Your task to perform on an android device: change keyboard looks Image 0: 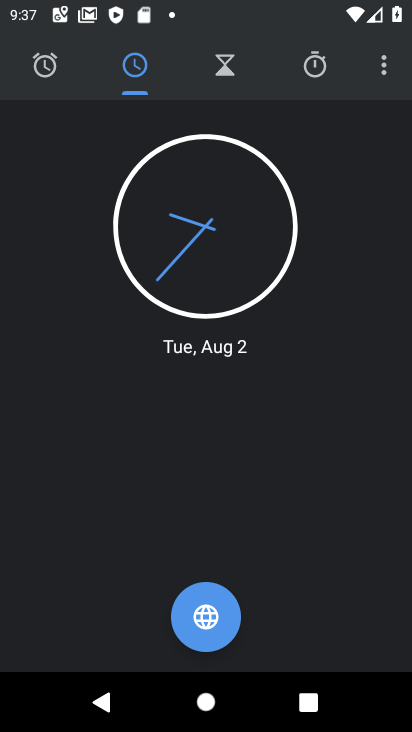
Step 0: press home button
Your task to perform on an android device: change keyboard looks Image 1: 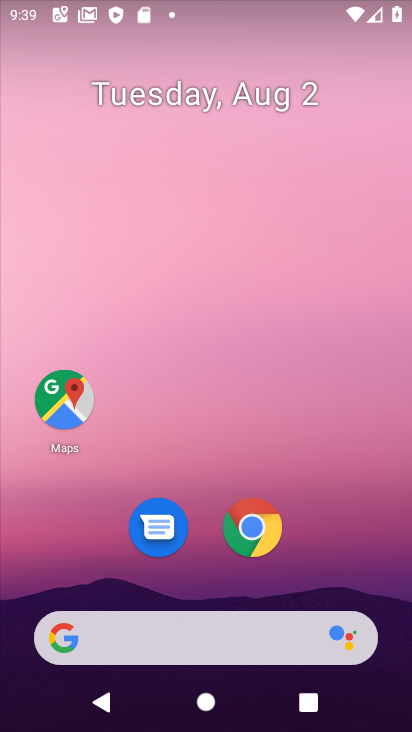
Step 1: drag from (144, 459) to (120, 143)
Your task to perform on an android device: change keyboard looks Image 2: 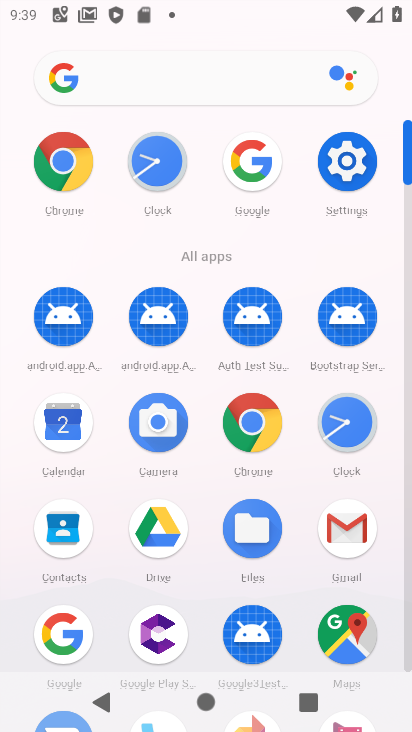
Step 2: click (345, 165)
Your task to perform on an android device: change keyboard looks Image 3: 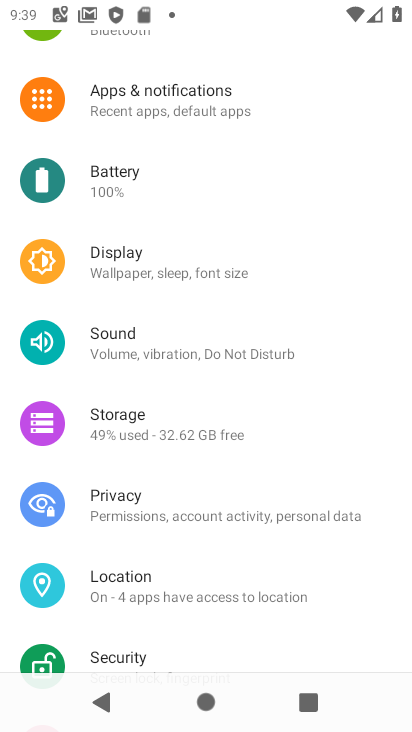
Step 3: drag from (107, 621) to (113, 332)
Your task to perform on an android device: change keyboard looks Image 4: 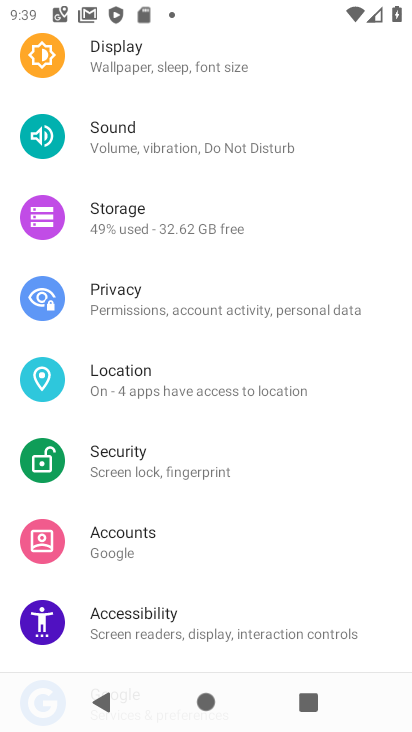
Step 4: drag from (157, 545) to (162, 238)
Your task to perform on an android device: change keyboard looks Image 5: 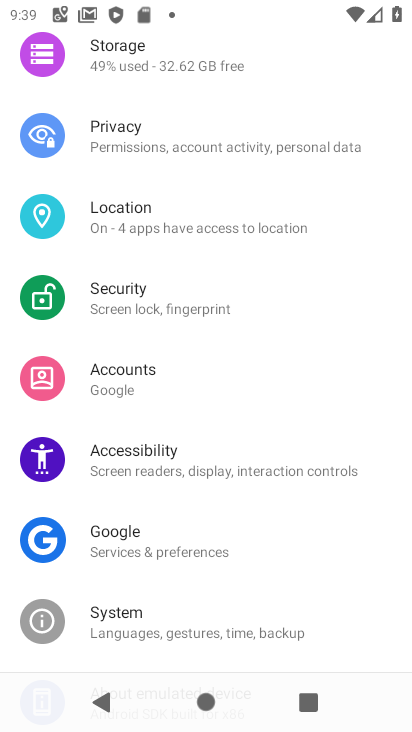
Step 5: drag from (133, 621) to (131, 267)
Your task to perform on an android device: change keyboard looks Image 6: 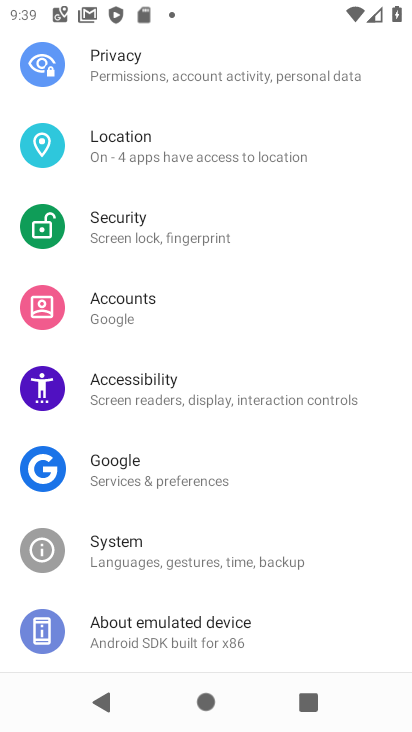
Step 6: click (114, 548)
Your task to perform on an android device: change keyboard looks Image 7: 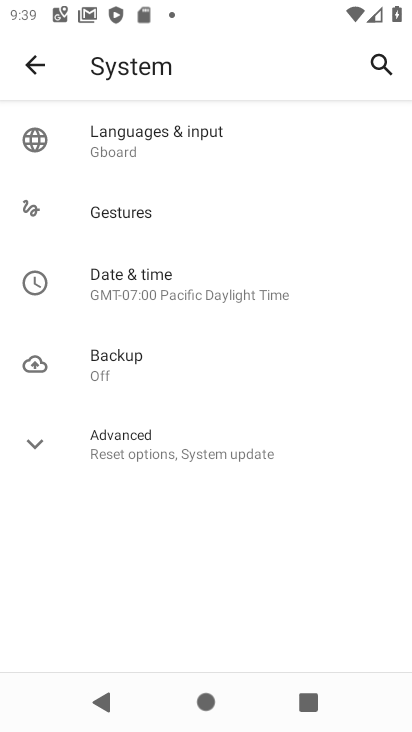
Step 7: click (119, 142)
Your task to perform on an android device: change keyboard looks Image 8: 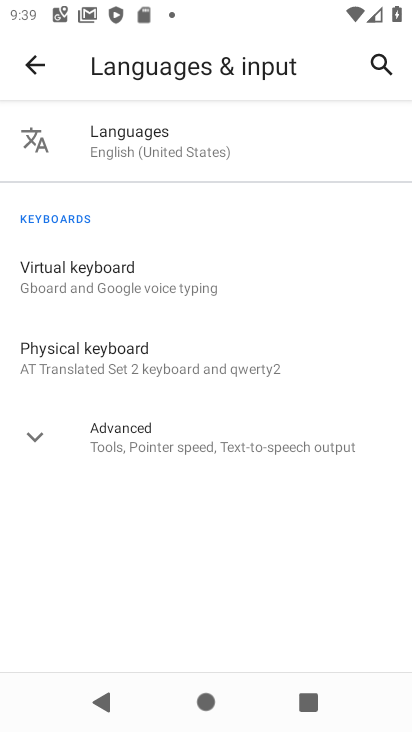
Step 8: click (108, 279)
Your task to perform on an android device: change keyboard looks Image 9: 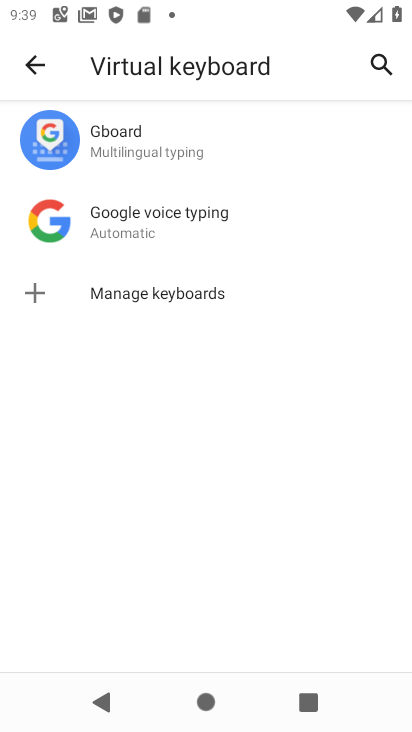
Step 9: click (105, 128)
Your task to perform on an android device: change keyboard looks Image 10: 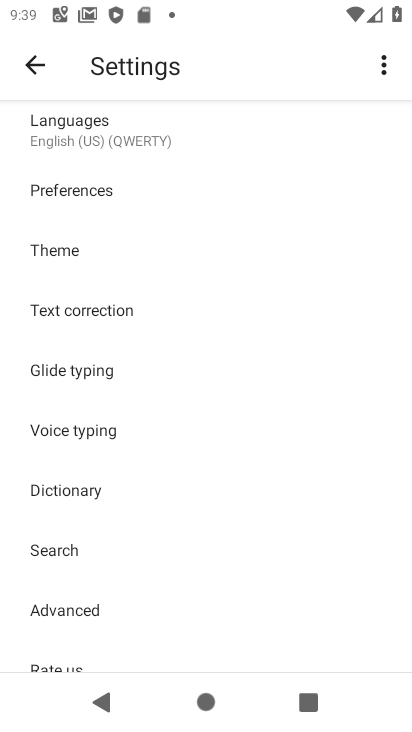
Step 10: click (62, 259)
Your task to perform on an android device: change keyboard looks Image 11: 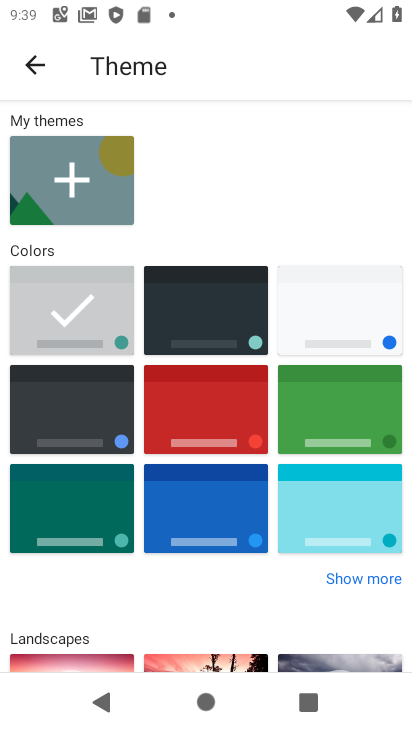
Step 11: click (214, 329)
Your task to perform on an android device: change keyboard looks Image 12: 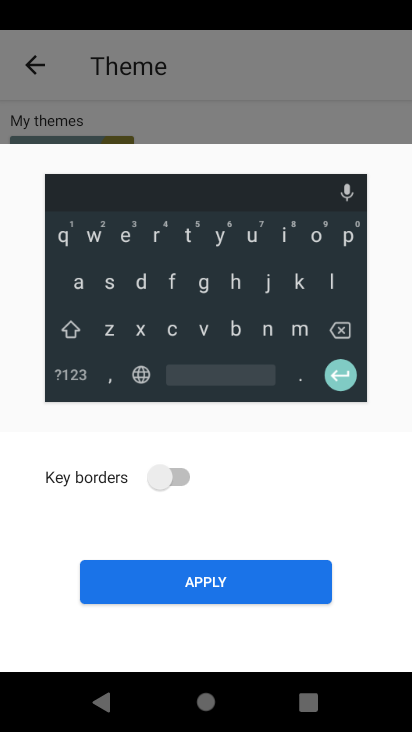
Step 12: click (205, 583)
Your task to perform on an android device: change keyboard looks Image 13: 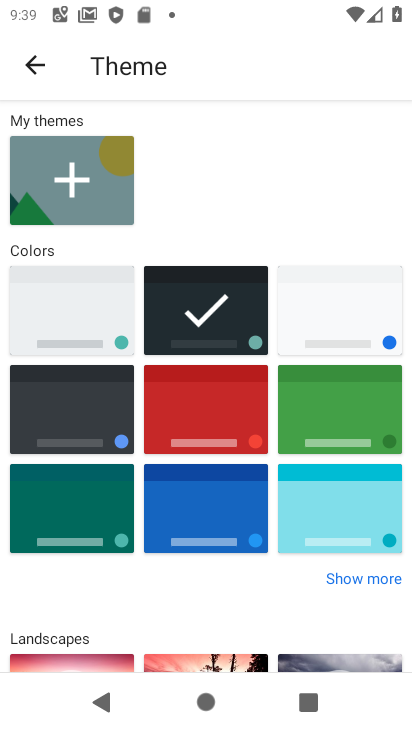
Step 13: task complete